Your task to perform on an android device: Go to display settings Image 0: 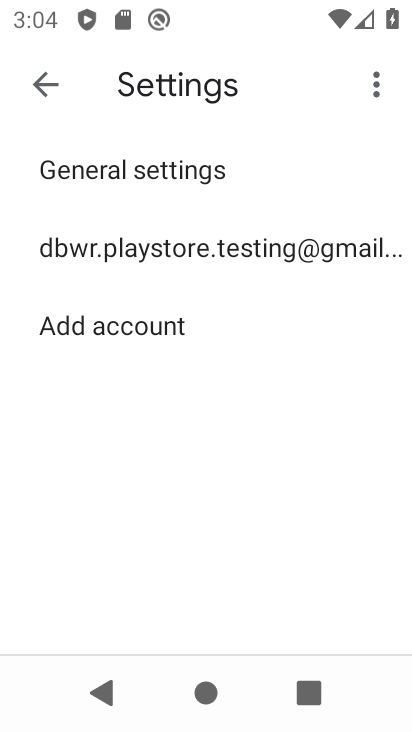
Step 0: click (250, 470)
Your task to perform on an android device: Go to display settings Image 1: 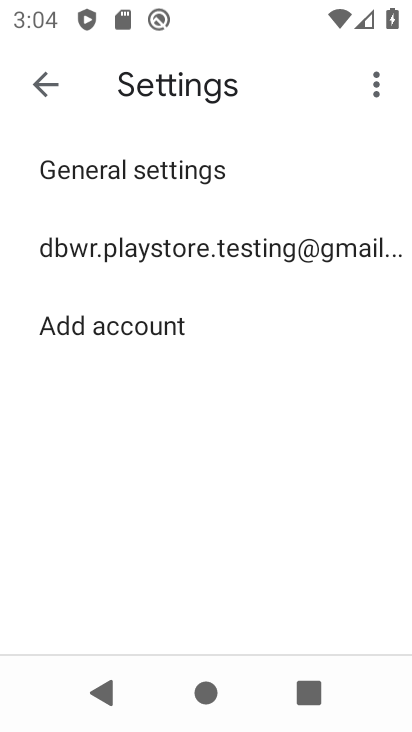
Step 1: press home button
Your task to perform on an android device: Go to display settings Image 2: 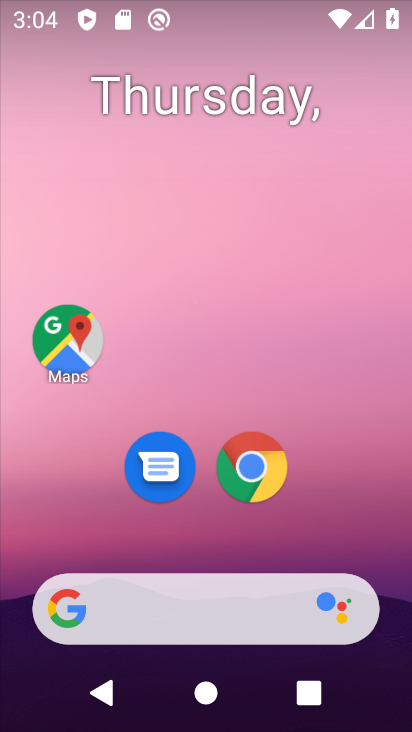
Step 2: drag from (202, 605) to (209, 141)
Your task to perform on an android device: Go to display settings Image 3: 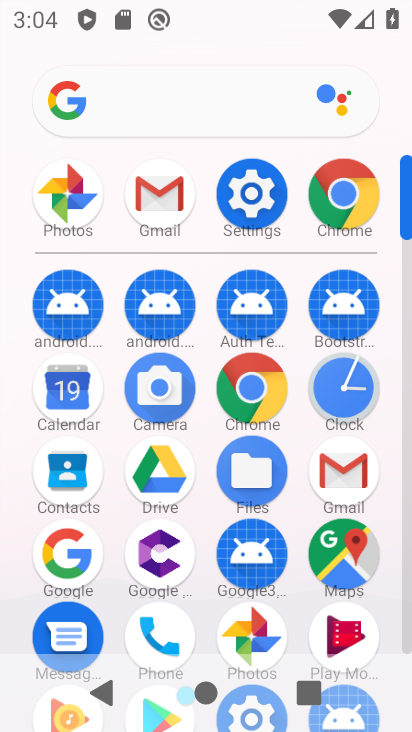
Step 3: click (232, 202)
Your task to perform on an android device: Go to display settings Image 4: 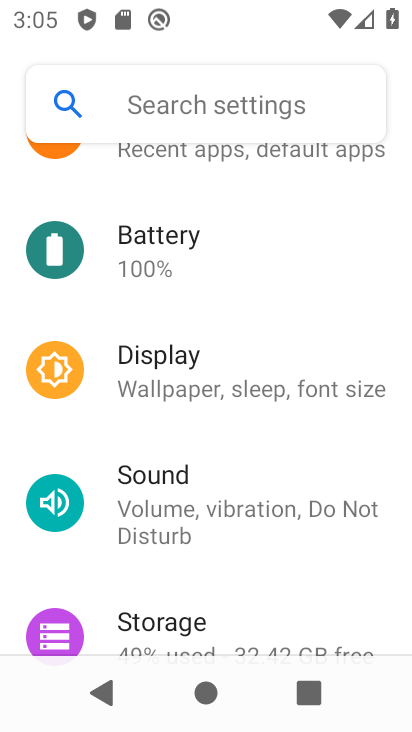
Step 4: click (196, 357)
Your task to perform on an android device: Go to display settings Image 5: 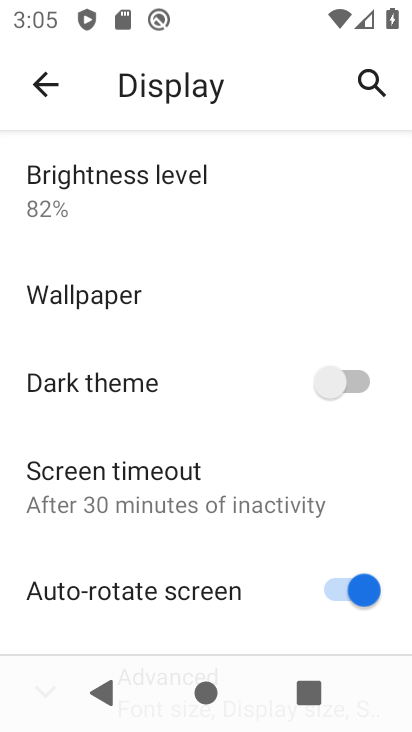
Step 5: task complete